Your task to perform on an android device: open device folders in google photos Image 0: 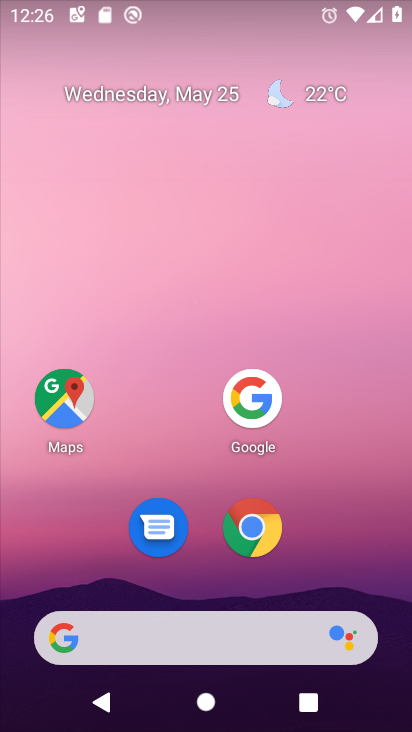
Step 0: drag from (178, 613) to (315, 90)
Your task to perform on an android device: open device folders in google photos Image 1: 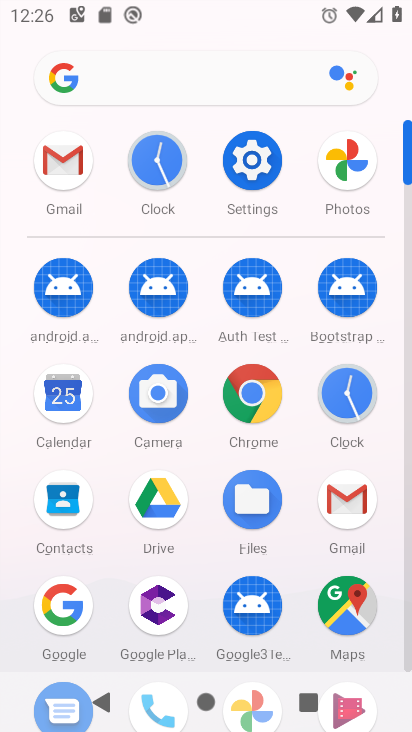
Step 1: drag from (216, 560) to (359, 135)
Your task to perform on an android device: open device folders in google photos Image 2: 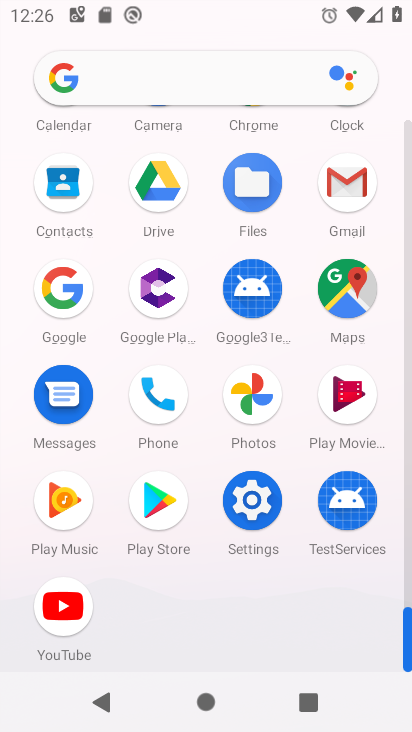
Step 2: click (260, 398)
Your task to perform on an android device: open device folders in google photos Image 3: 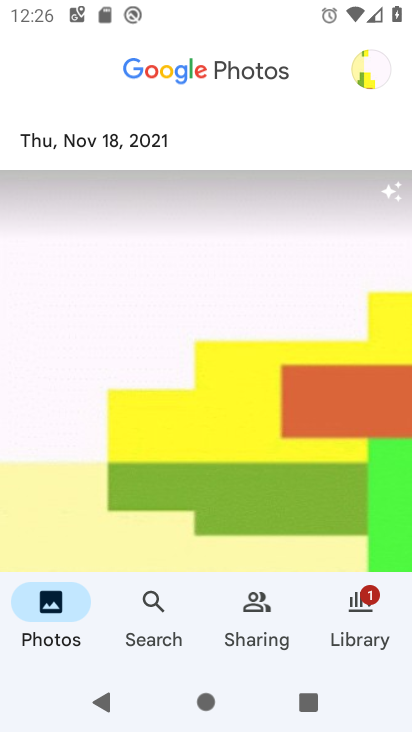
Step 3: click (379, 63)
Your task to perform on an android device: open device folders in google photos Image 4: 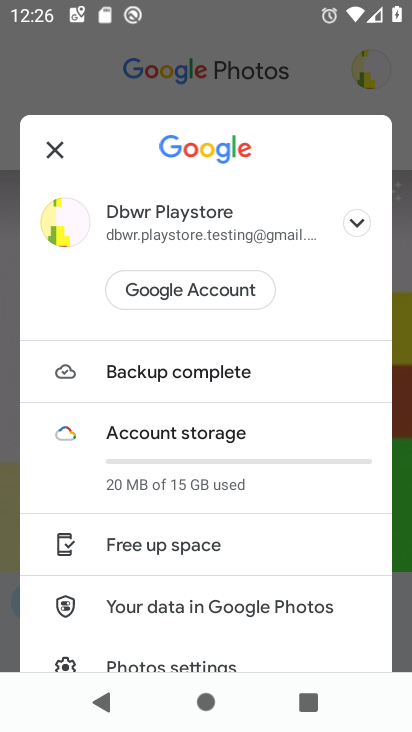
Step 4: drag from (212, 630) to (316, 227)
Your task to perform on an android device: open device folders in google photos Image 5: 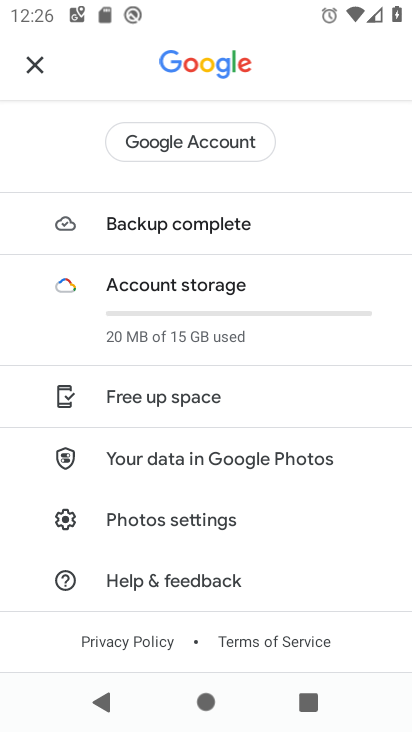
Step 5: click (175, 523)
Your task to perform on an android device: open device folders in google photos Image 6: 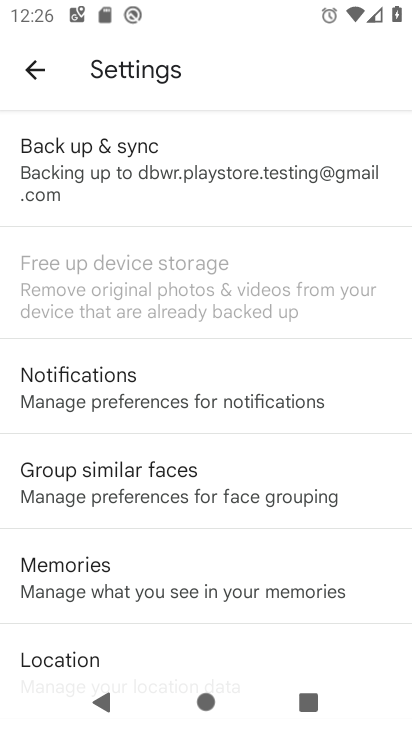
Step 6: task complete